Your task to perform on an android device: Turn off the flashlight Image 0: 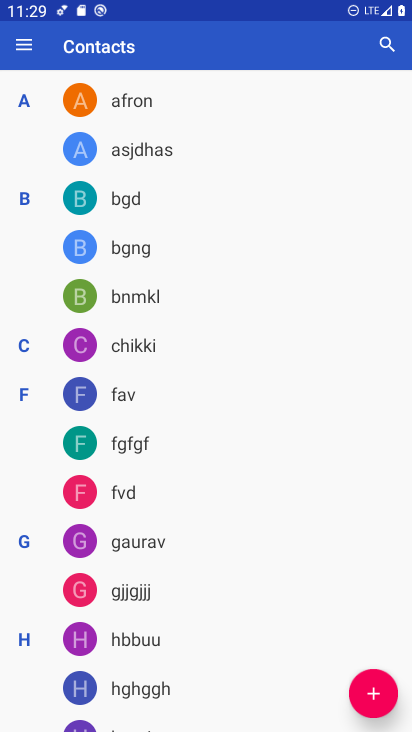
Step 0: press home button
Your task to perform on an android device: Turn off the flashlight Image 1: 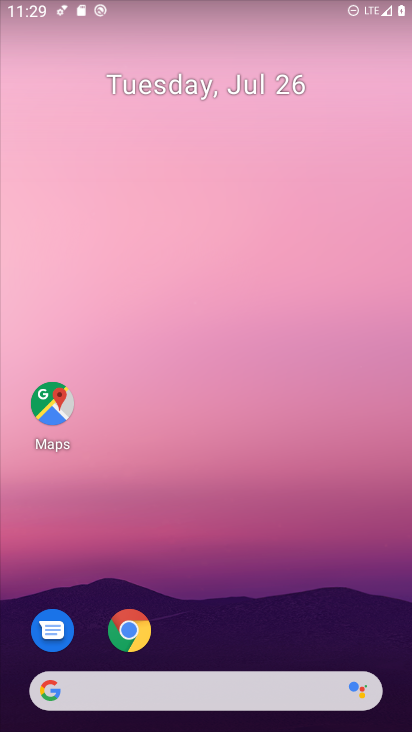
Step 1: drag from (216, 13) to (219, 476)
Your task to perform on an android device: Turn off the flashlight Image 2: 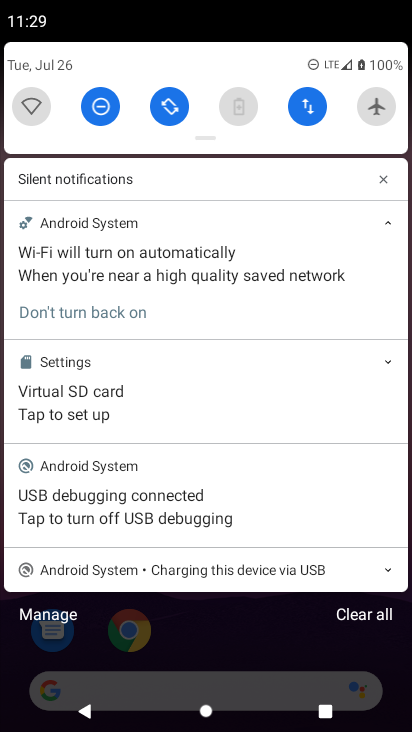
Step 2: drag from (213, 140) to (220, 361)
Your task to perform on an android device: Turn off the flashlight Image 3: 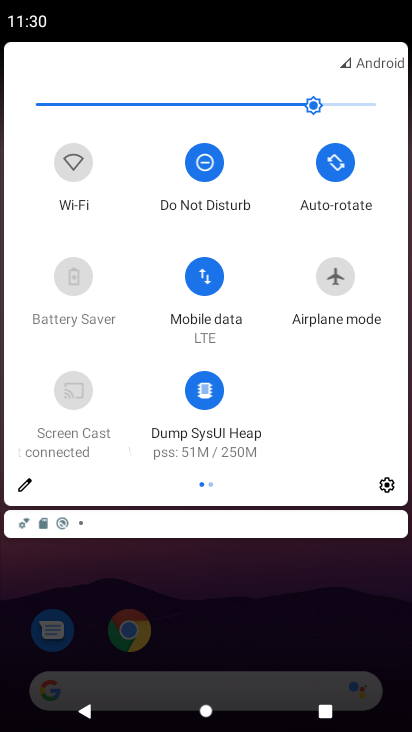
Step 3: click (24, 481)
Your task to perform on an android device: Turn off the flashlight Image 4: 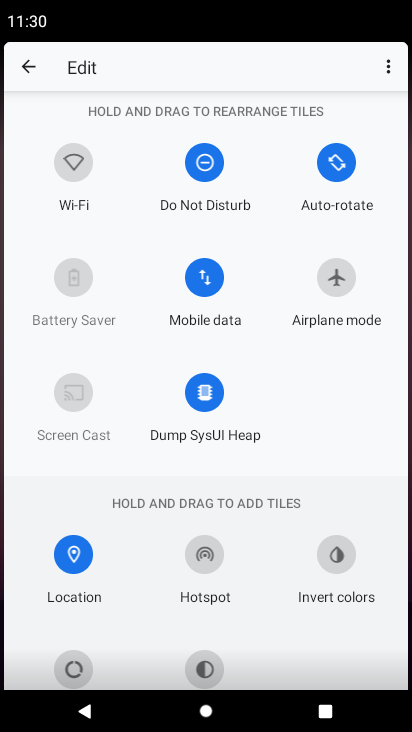
Step 4: task complete